Your task to perform on an android device: Search for seafood restaurants on Google Maps Image 0: 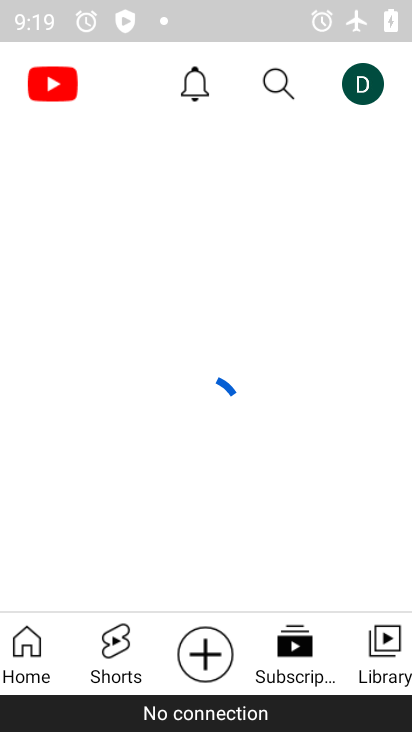
Step 0: press back button
Your task to perform on an android device: Search for seafood restaurants on Google Maps Image 1: 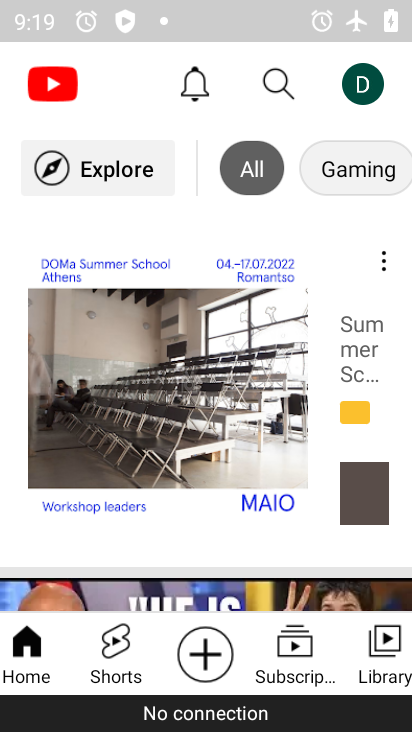
Step 1: press back button
Your task to perform on an android device: Search for seafood restaurants on Google Maps Image 2: 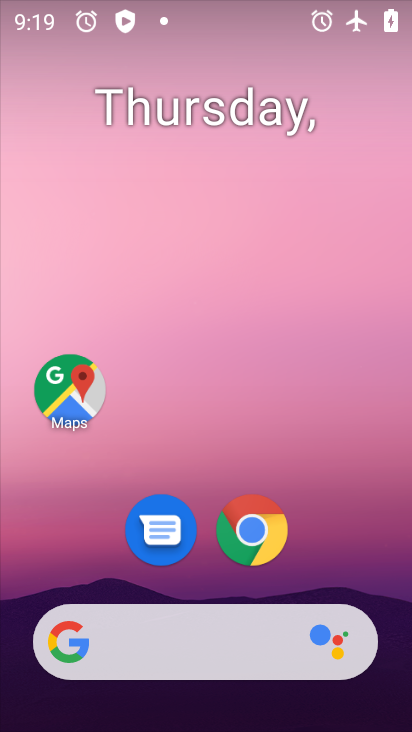
Step 2: drag from (344, 550) to (260, 19)
Your task to perform on an android device: Search for seafood restaurants on Google Maps Image 3: 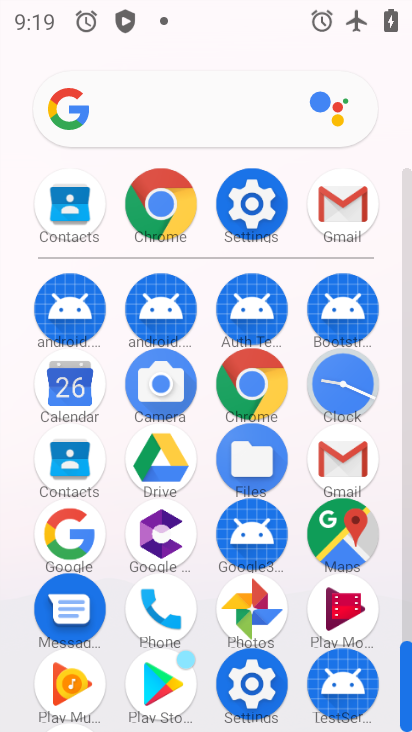
Step 3: click (341, 535)
Your task to perform on an android device: Search for seafood restaurants on Google Maps Image 4: 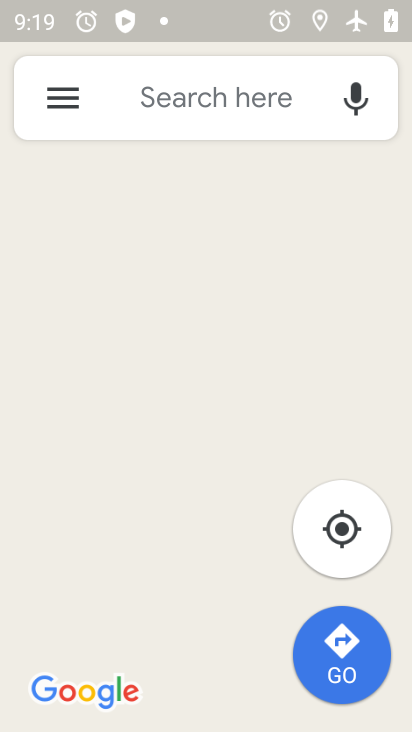
Step 4: click (141, 91)
Your task to perform on an android device: Search for seafood restaurants on Google Maps Image 5: 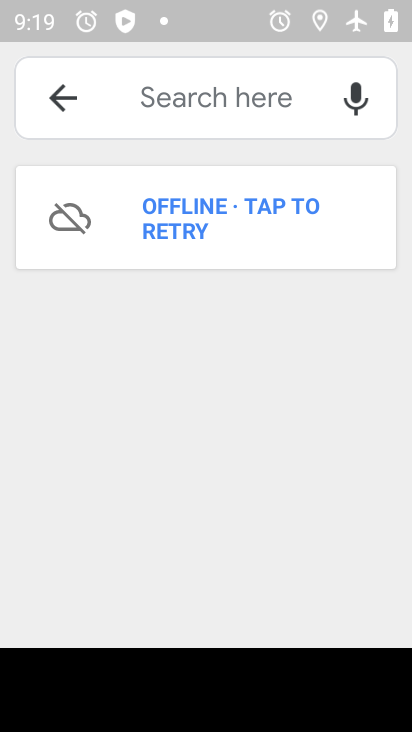
Step 5: type "seafood restaurants"
Your task to perform on an android device: Search for seafood restaurants on Google Maps Image 6: 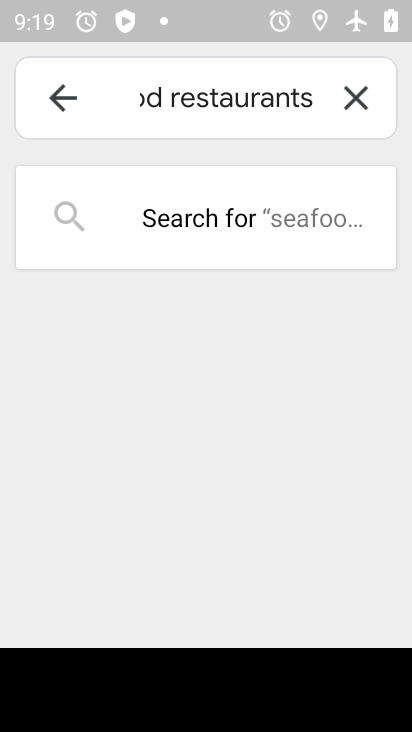
Step 6: click (282, 217)
Your task to perform on an android device: Search for seafood restaurants on Google Maps Image 7: 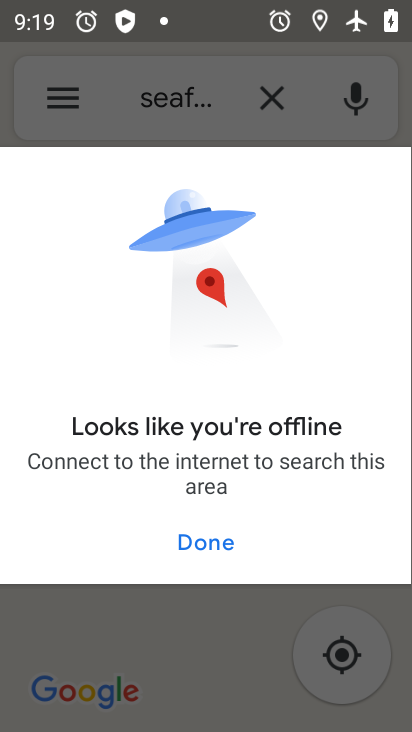
Step 7: task complete